Your task to perform on an android device: read, delete, or share a saved page in the chrome app Image 0: 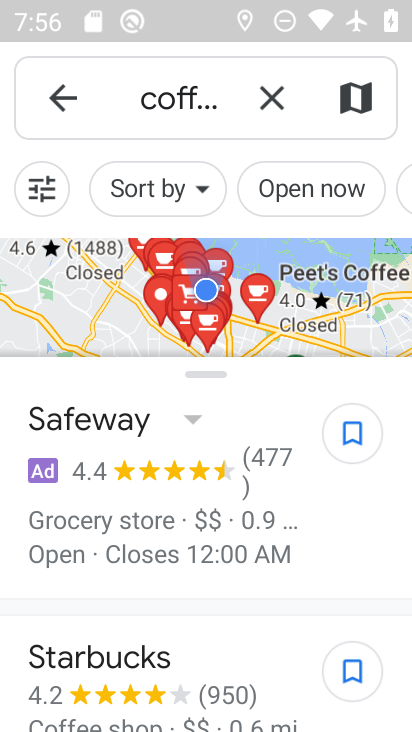
Step 0: press home button
Your task to perform on an android device: read, delete, or share a saved page in the chrome app Image 1: 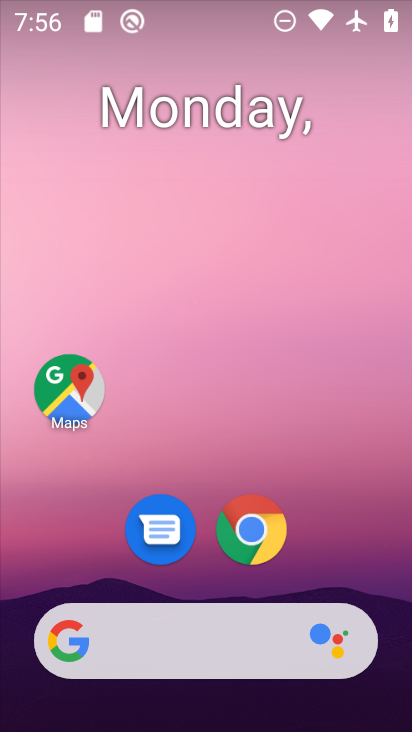
Step 1: click (247, 530)
Your task to perform on an android device: read, delete, or share a saved page in the chrome app Image 2: 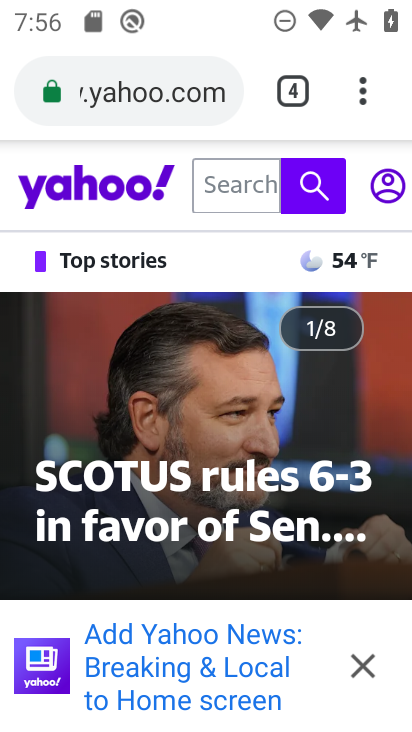
Step 2: click (363, 95)
Your task to perform on an android device: read, delete, or share a saved page in the chrome app Image 3: 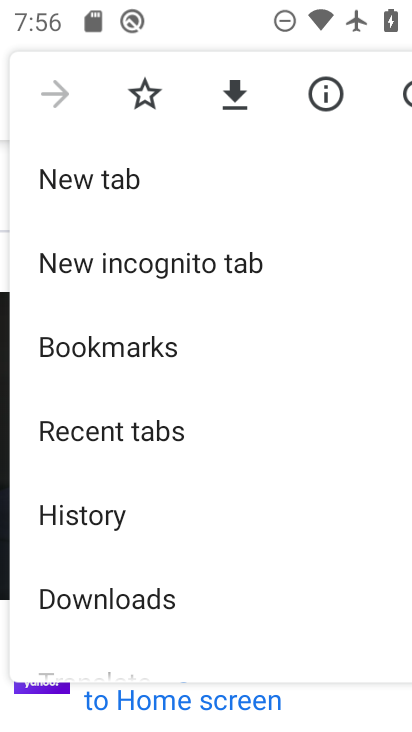
Step 3: drag from (179, 511) to (138, 289)
Your task to perform on an android device: read, delete, or share a saved page in the chrome app Image 4: 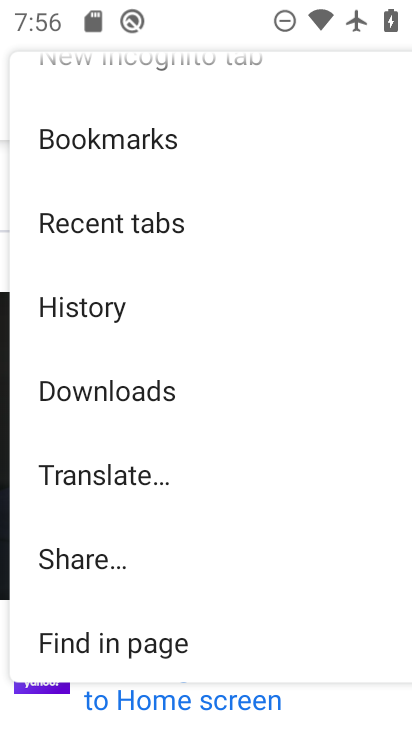
Step 4: click (132, 374)
Your task to perform on an android device: read, delete, or share a saved page in the chrome app Image 5: 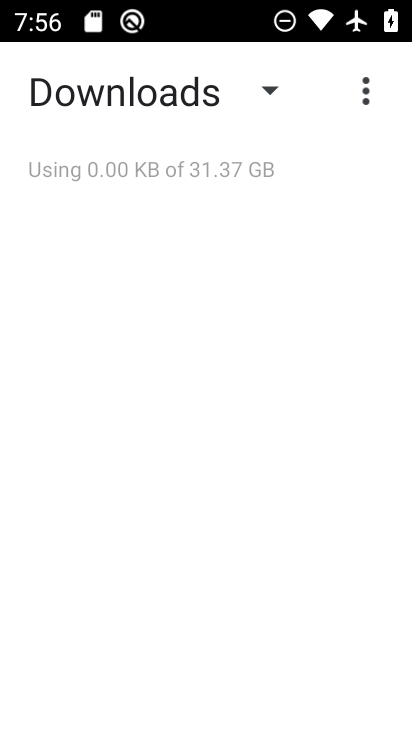
Step 5: task complete